Your task to perform on an android device: View the shopping cart on amazon.com. Search for "dell xps" on amazon.com, select the first entry, add it to the cart, then select checkout. Image 0: 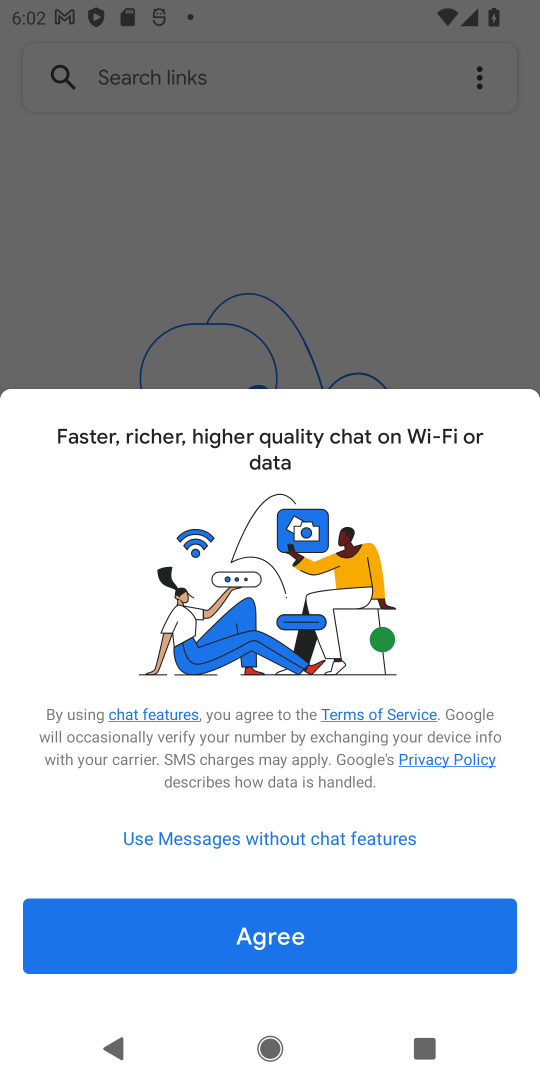
Step 0: press home button
Your task to perform on an android device: View the shopping cart on amazon.com. Search for "dell xps" on amazon.com, select the first entry, add it to the cart, then select checkout. Image 1: 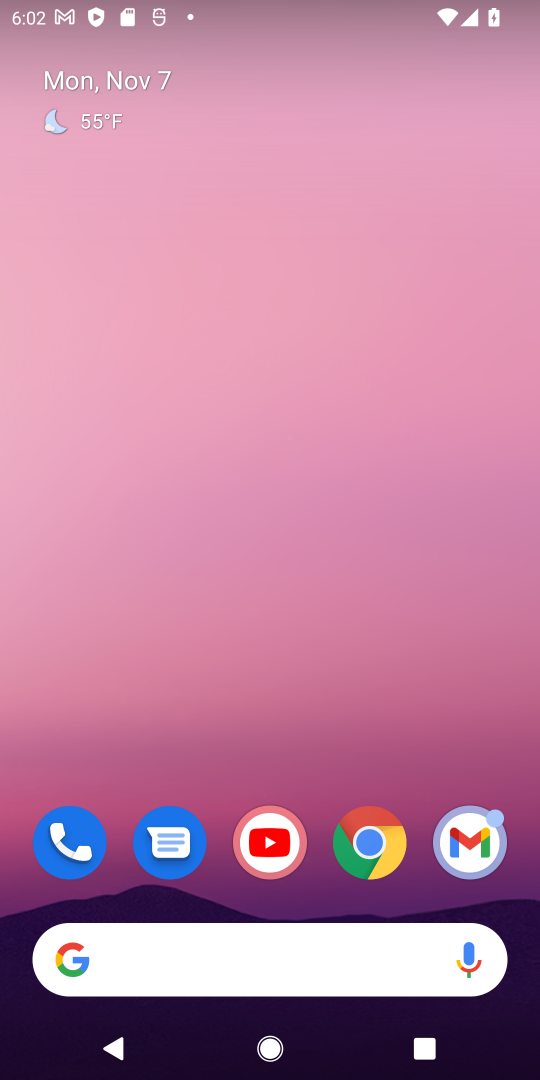
Step 1: click (373, 855)
Your task to perform on an android device: View the shopping cart on amazon.com. Search for "dell xps" on amazon.com, select the first entry, add it to the cart, then select checkout. Image 2: 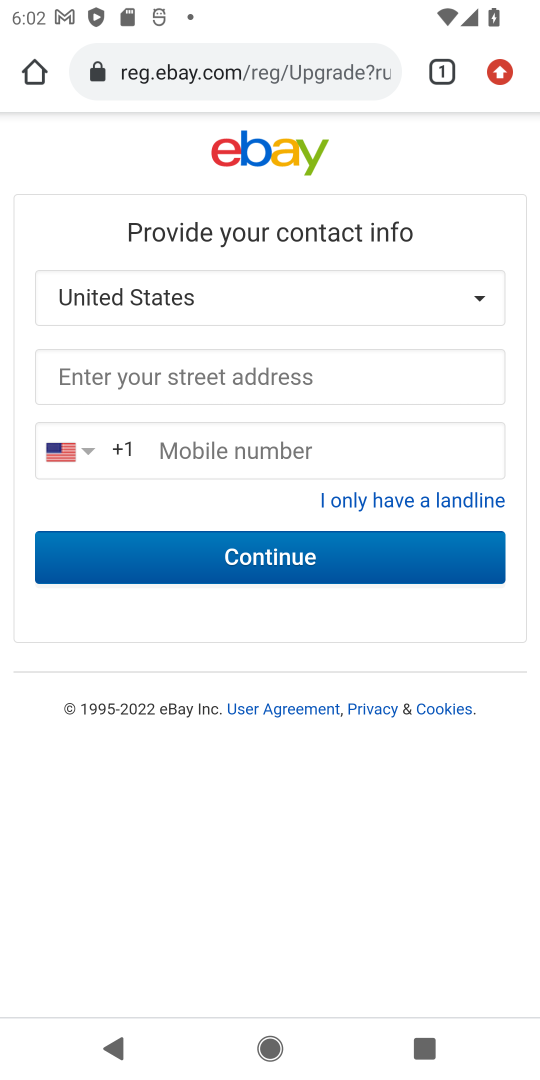
Step 2: click (296, 69)
Your task to perform on an android device: View the shopping cart on amazon.com. Search for "dell xps" on amazon.com, select the first entry, add it to the cart, then select checkout. Image 3: 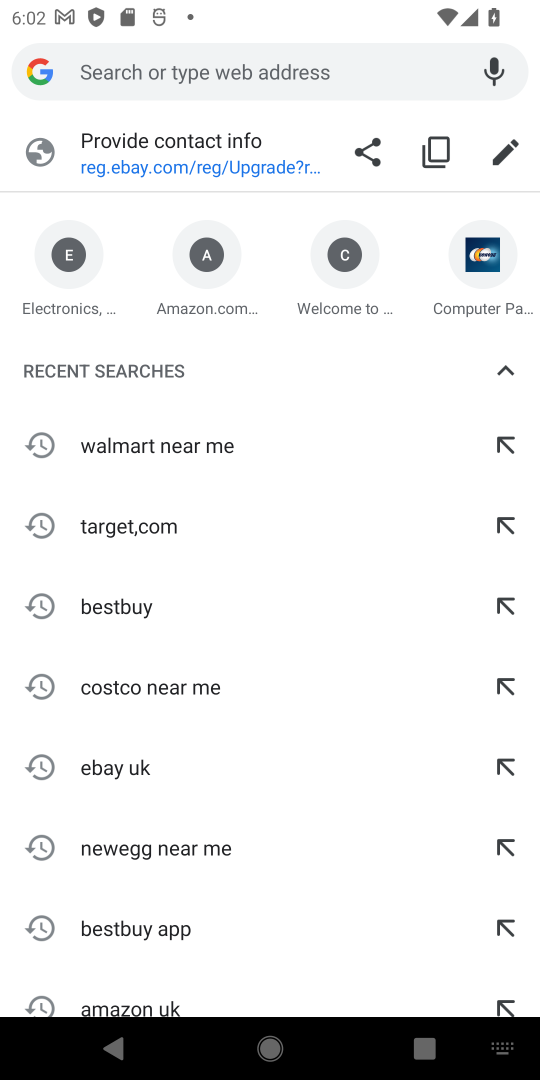
Step 3: click (211, 305)
Your task to perform on an android device: View the shopping cart on amazon.com. Search for "dell xps" on amazon.com, select the first entry, add it to the cart, then select checkout. Image 4: 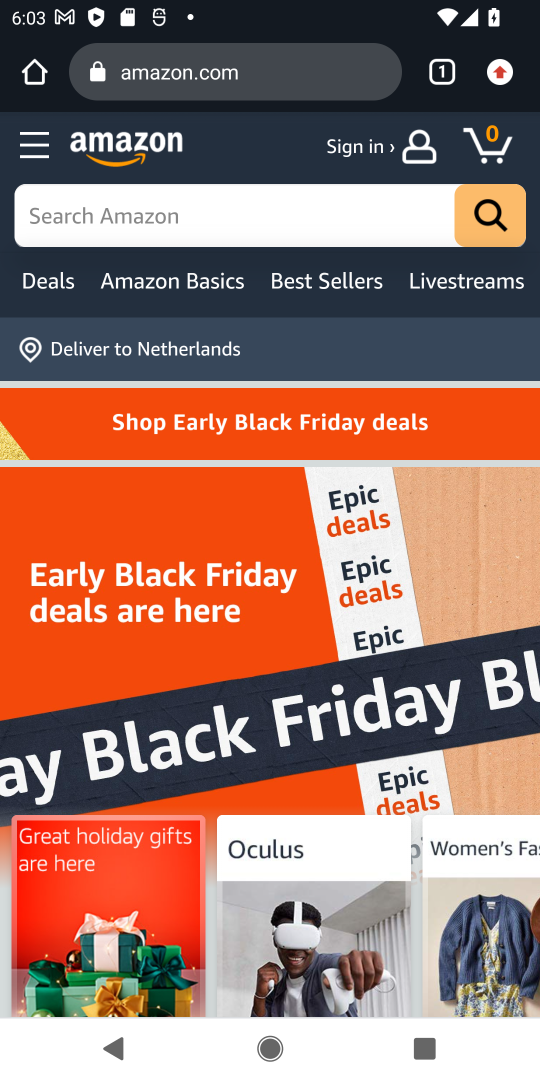
Step 4: click (268, 216)
Your task to perform on an android device: View the shopping cart on amazon.com. Search for "dell xps" on amazon.com, select the first entry, add it to the cart, then select checkout. Image 5: 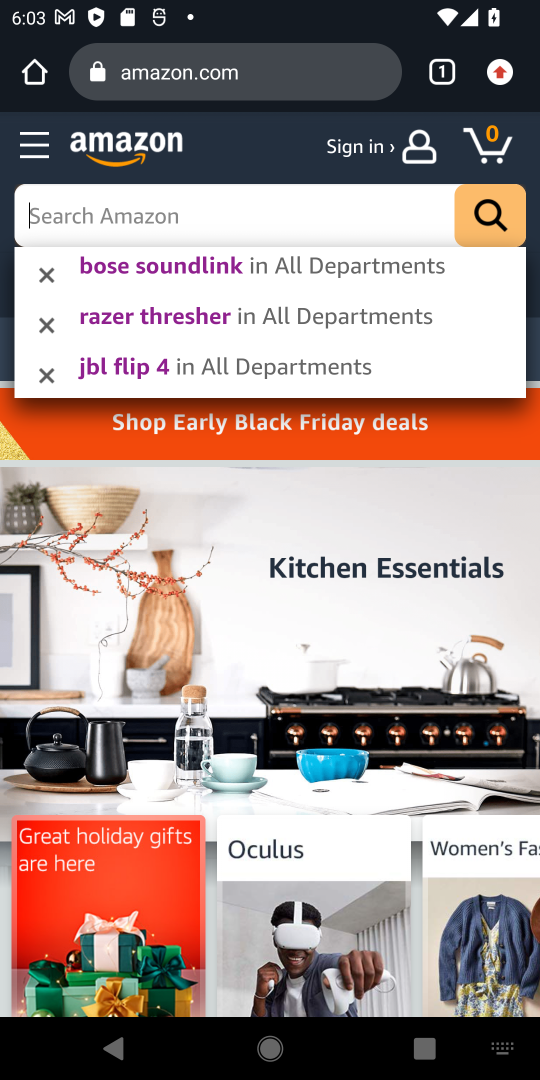
Step 5: type "dell xps"
Your task to perform on an android device: View the shopping cart on amazon.com. Search for "dell xps" on amazon.com, select the first entry, add it to the cart, then select checkout. Image 6: 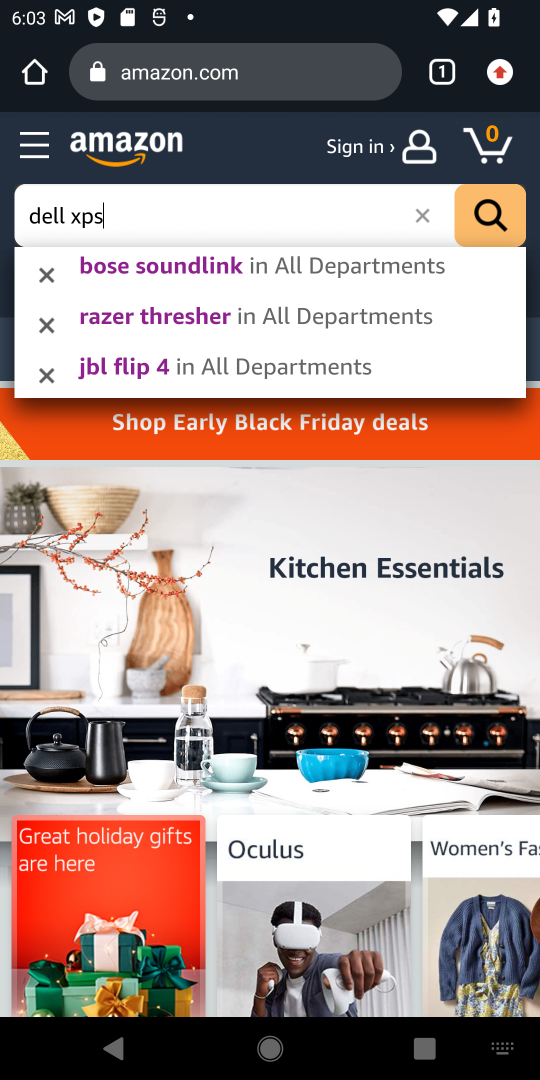
Step 6: press enter
Your task to perform on an android device: View the shopping cart on amazon.com. Search for "dell xps" on amazon.com, select the first entry, add it to the cart, then select checkout. Image 7: 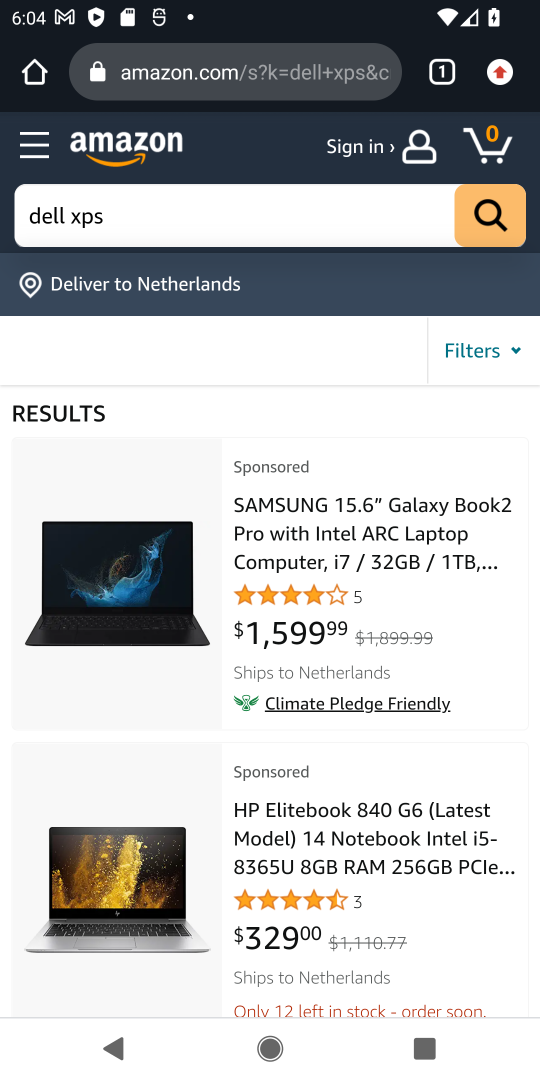
Step 7: task complete